Your task to perform on an android device: turn smart compose on in the gmail app Image 0: 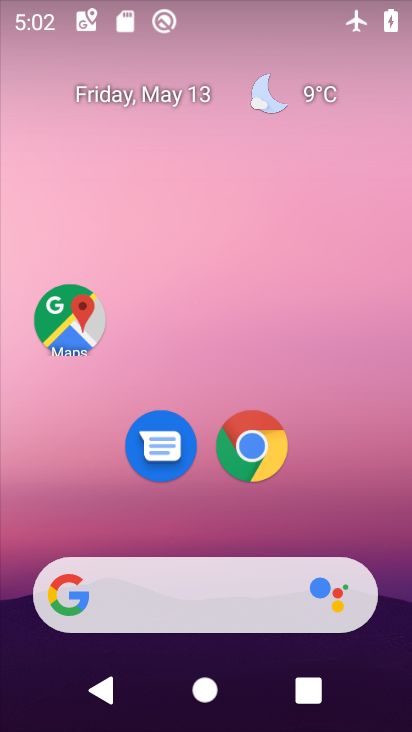
Step 0: drag from (352, 502) to (345, 2)
Your task to perform on an android device: turn smart compose on in the gmail app Image 1: 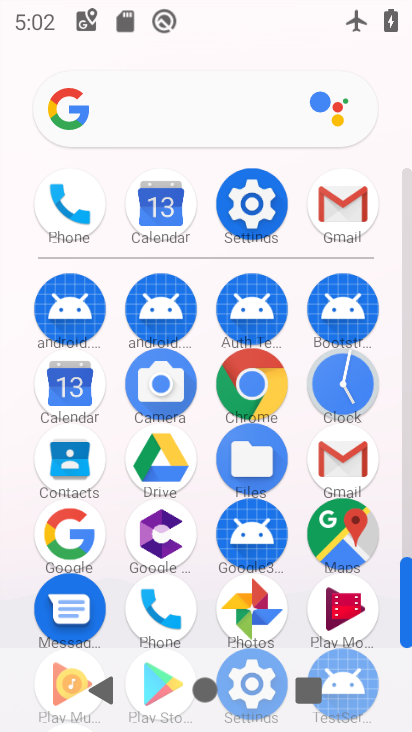
Step 1: click (339, 447)
Your task to perform on an android device: turn smart compose on in the gmail app Image 2: 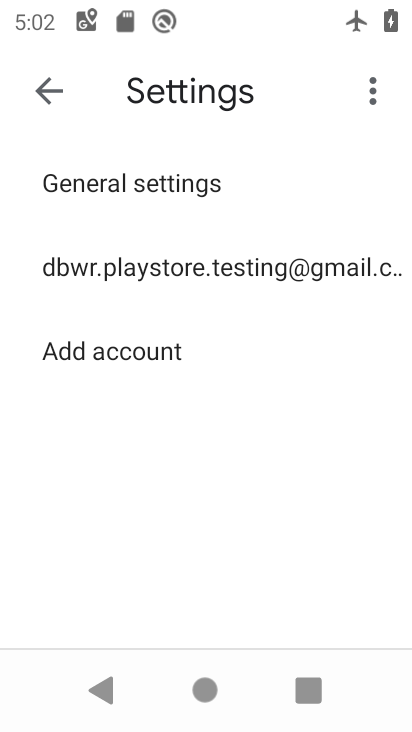
Step 2: click (115, 254)
Your task to perform on an android device: turn smart compose on in the gmail app Image 3: 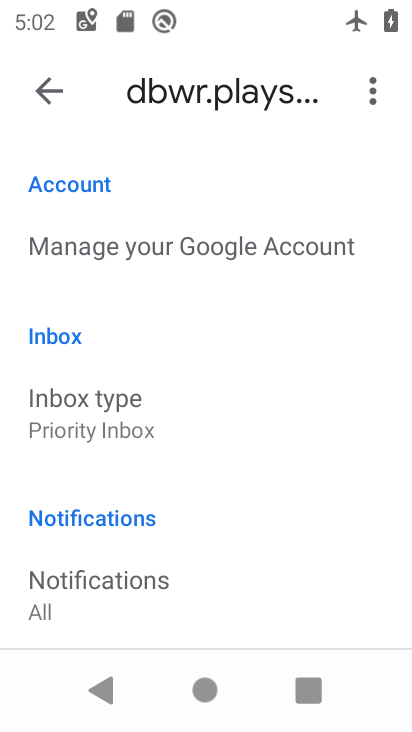
Step 3: task complete